Your task to perform on an android device: turn on airplane mode Image 0: 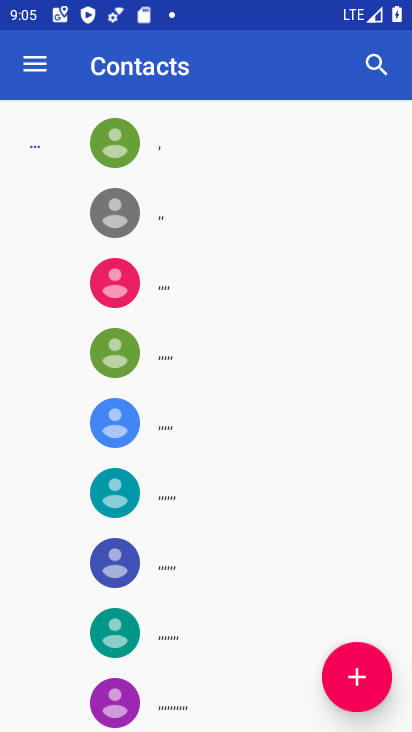
Step 0: press back button
Your task to perform on an android device: turn on airplane mode Image 1: 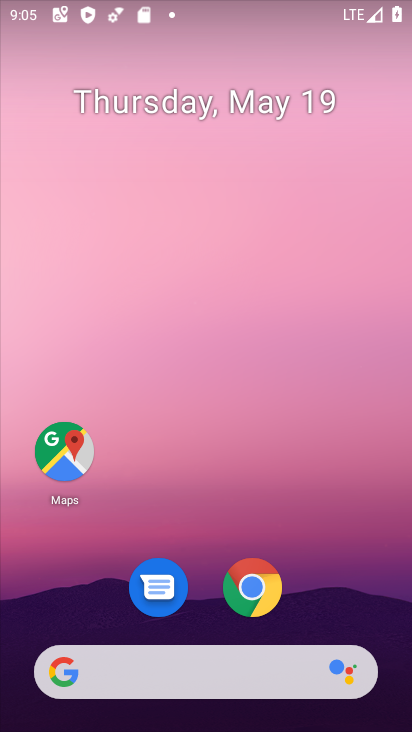
Step 1: drag from (360, 570) to (300, 22)
Your task to perform on an android device: turn on airplane mode Image 2: 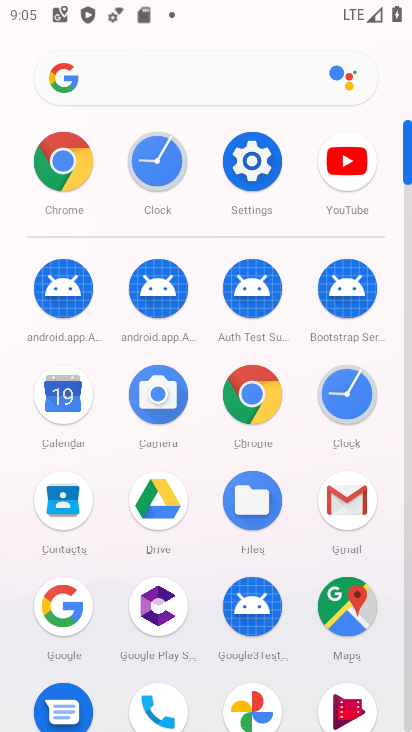
Step 2: drag from (10, 540) to (13, 244)
Your task to perform on an android device: turn on airplane mode Image 3: 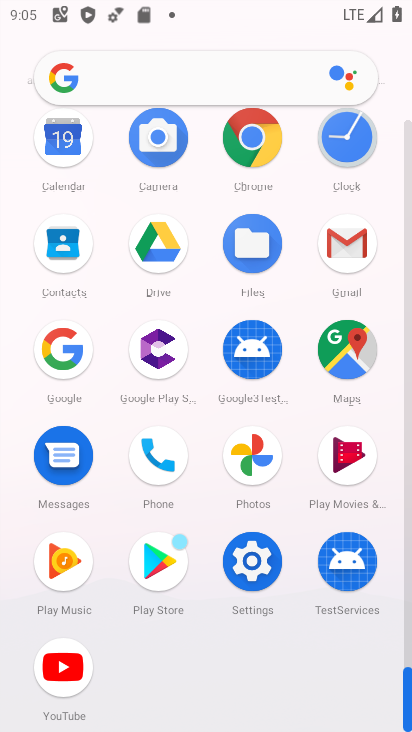
Step 3: click (249, 557)
Your task to perform on an android device: turn on airplane mode Image 4: 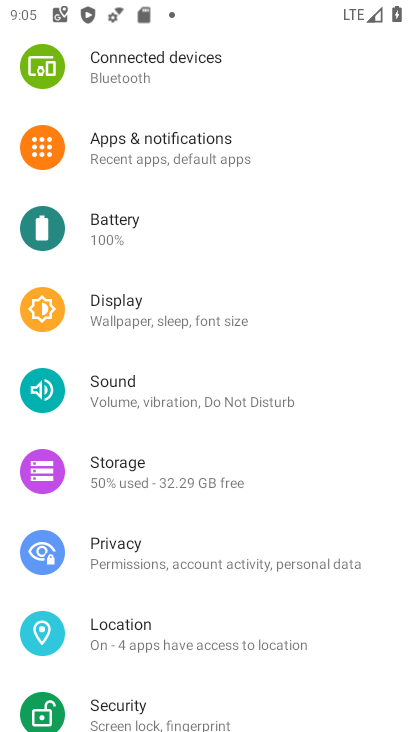
Step 4: drag from (211, 132) to (211, 612)
Your task to perform on an android device: turn on airplane mode Image 5: 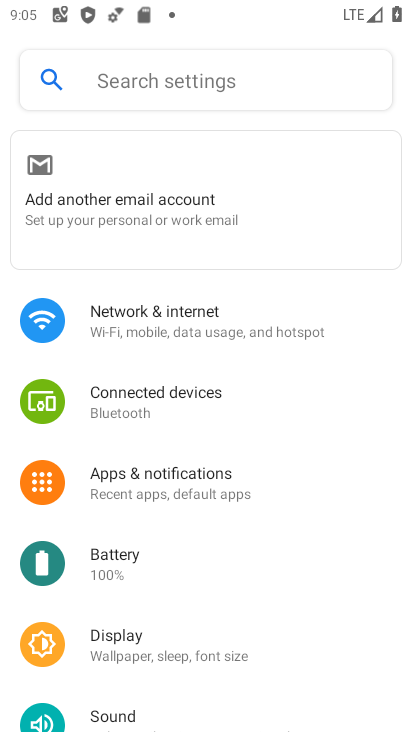
Step 5: click (203, 313)
Your task to perform on an android device: turn on airplane mode Image 6: 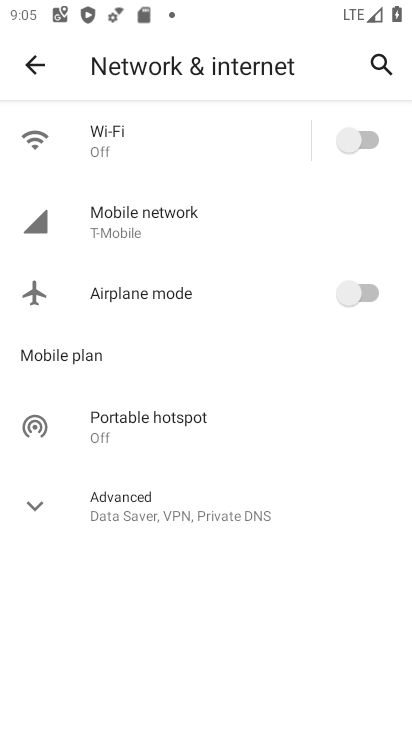
Step 6: click (45, 500)
Your task to perform on an android device: turn on airplane mode Image 7: 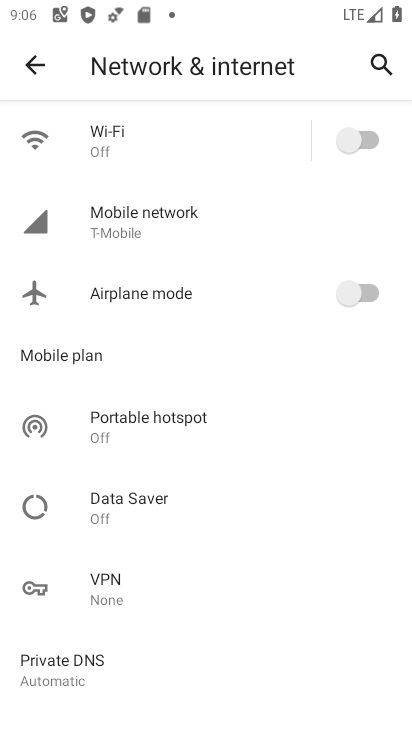
Step 7: click (344, 288)
Your task to perform on an android device: turn on airplane mode Image 8: 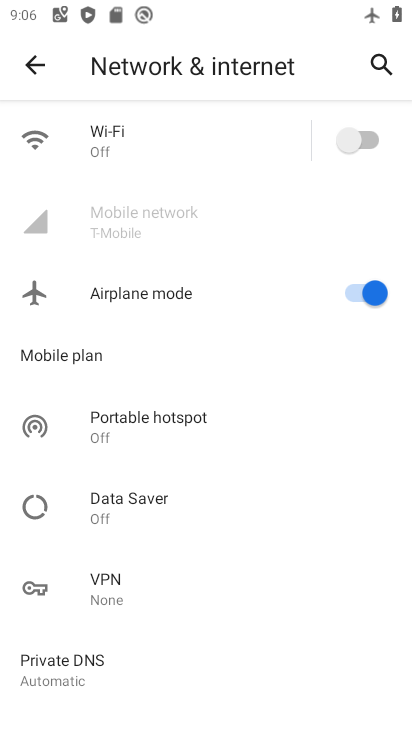
Step 8: task complete